Your task to perform on an android device: Nike Air Max 2020 shoes on Nike.com Image 0: 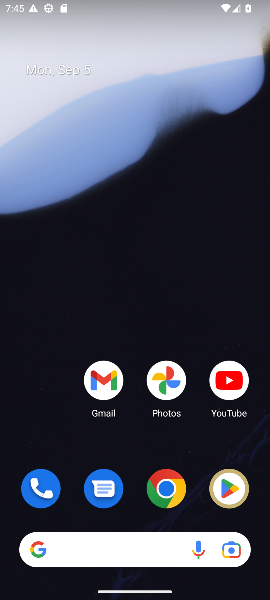
Step 0: click (169, 491)
Your task to perform on an android device: Nike Air Max 2020 shoes on Nike.com Image 1: 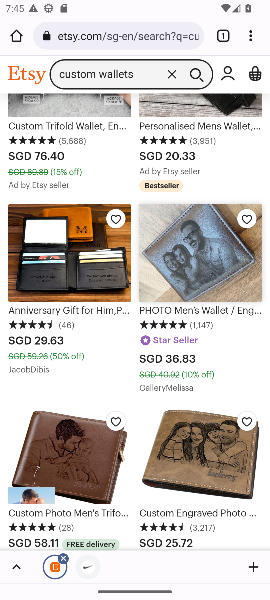
Step 1: click (112, 43)
Your task to perform on an android device: Nike Air Max 2020 shoes on Nike.com Image 2: 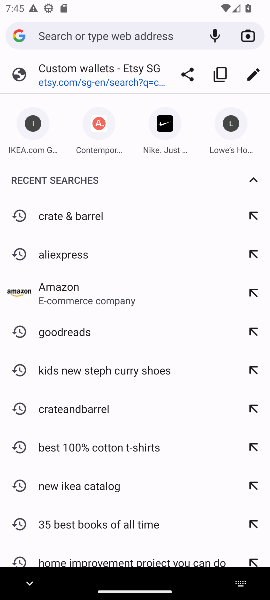
Step 2: type "nike.com"
Your task to perform on an android device: Nike Air Max 2020 shoes on Nike.com Image 3: 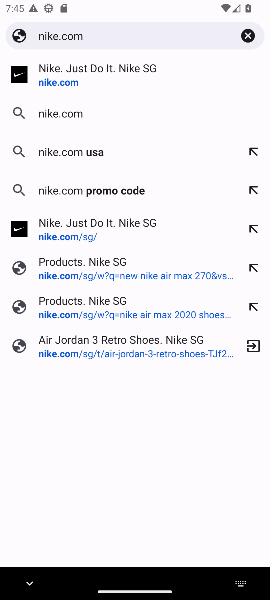
Step 3: press enter
Your task to perform on an android device: Nike Air Max 2020 shoes on Nike.com Image 4: 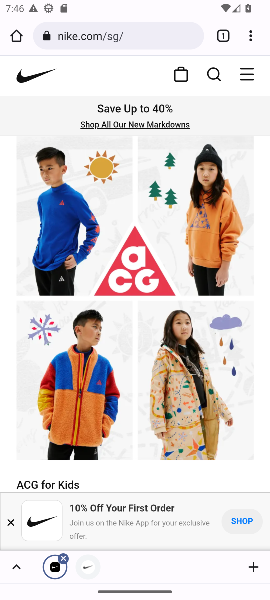
Step 4: click (208, 73)
Your task to perform on an android device: Nike Air Max 2020 shoes on Nike.com Image 5: 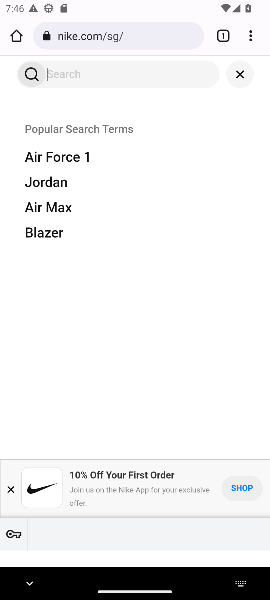
Step 5: type "nike air max 2020 shoes"
Your task to perform on an android device: Nike Air Max 2020 shoes on Nike.com Image 6: 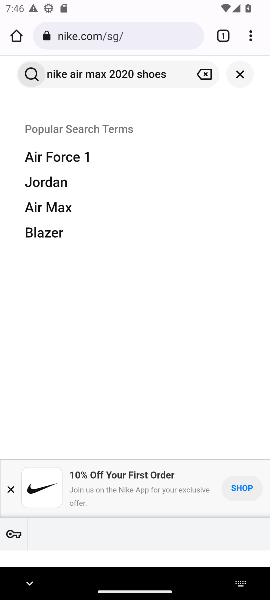
Step 6: press enter
Your task to perform on an android device: Nike Air Max 2020 shoes on Nike.com Image 7: 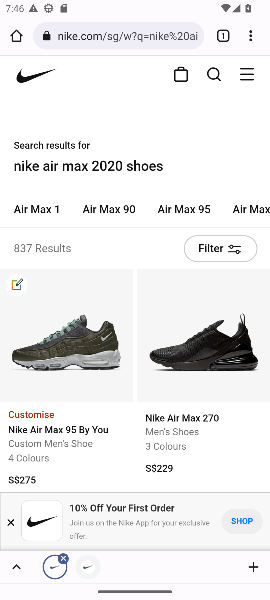
Step 7: drag from (177, 334) to (199, 456)
Your task to perform on an android device: Nike Air Max 2020 shoes on Nike.com Image 8: 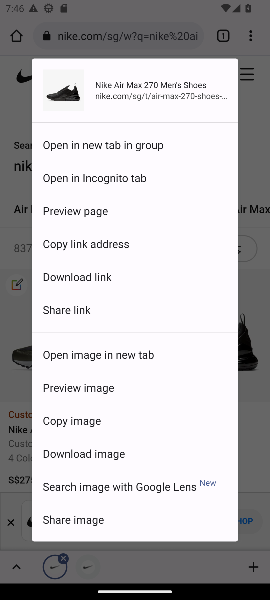
Step 8: click (242, 425)
Your task to perform on an android device: Nike Air Max 2020 shoes on Nike.com Image 9: 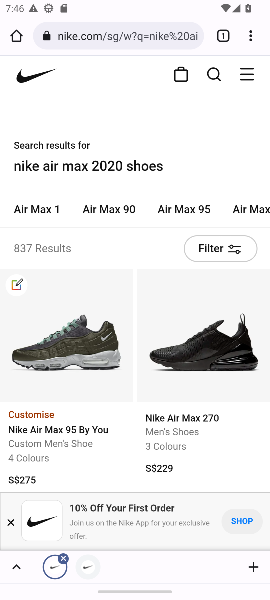
Step 9: drag from (242, 425) to (251, 344)
Your task to perform on an android device: Nike Air Max 2020 shoes on Nike.com Image 10: 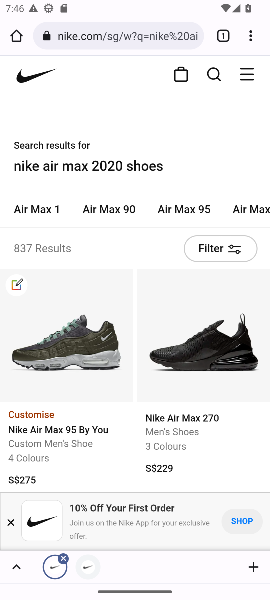
Step 10: drag from (135, 254) to (146, 99)
Your task to perform on an android device: Nike Air Max 2020 shoes on Nike.com Image 11: 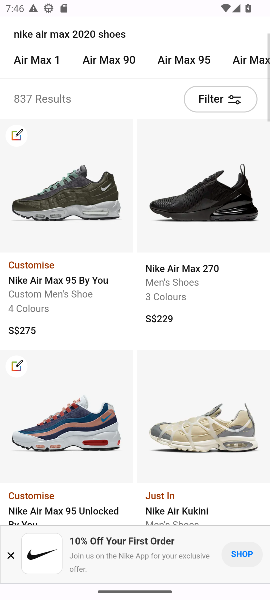
Step 11: drag from (154, 364) to (165, 471)
Your task to perform on an android device: Nike Air Max 2020 shoes on Nike.com Image 12: 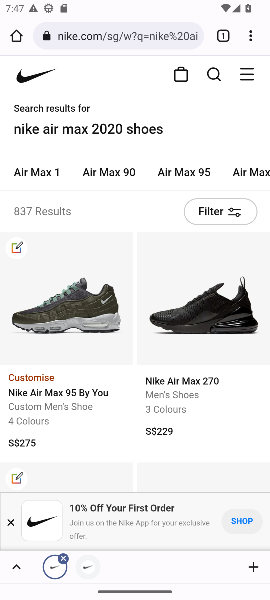
Step 12: drag from (107, 404) to (128, 171)
Your task to perform on an android device: Nike Air Max 2020 shoes on Nike.com Image 13: 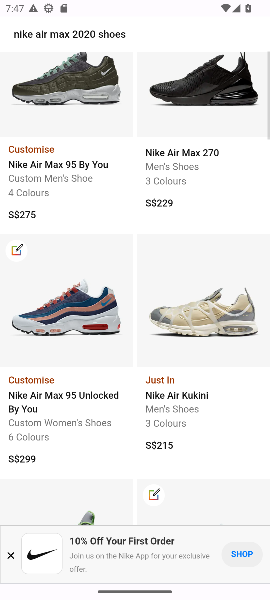
Step 13: drag from (127, 382) to (153, 233)
Your task to perform on an android device: Nike Air Max 2020 shoes on Nike.com Image 14: 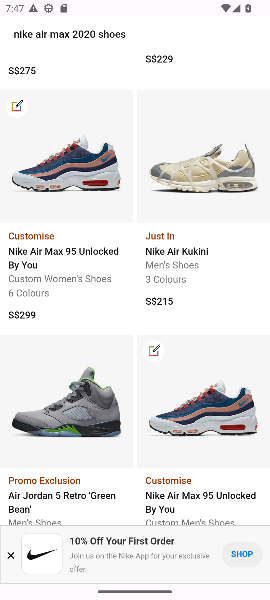
Step 14: click (249, 309)
Your task to perform on an android device: Nike Air Max 2020 shoes on Nike.com Image 15: 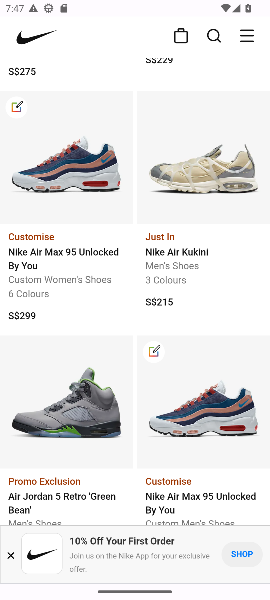
Step 15: task complete